Your task to perform on an android device: Go to Reddit.com Image 0: 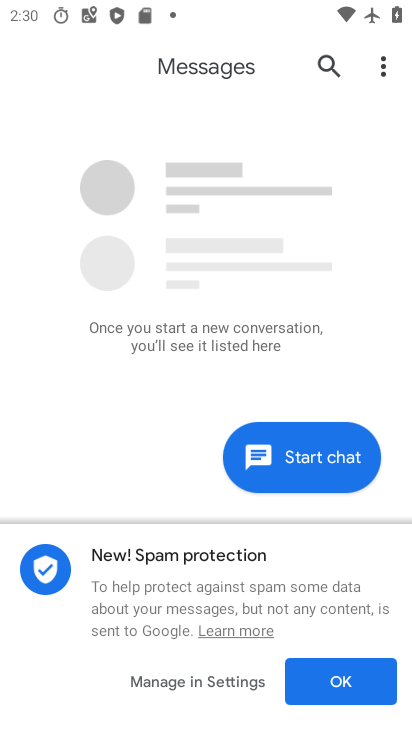
Step 0: press home button
Your task to perform on an android device: Go to Reddit.com Image 1: 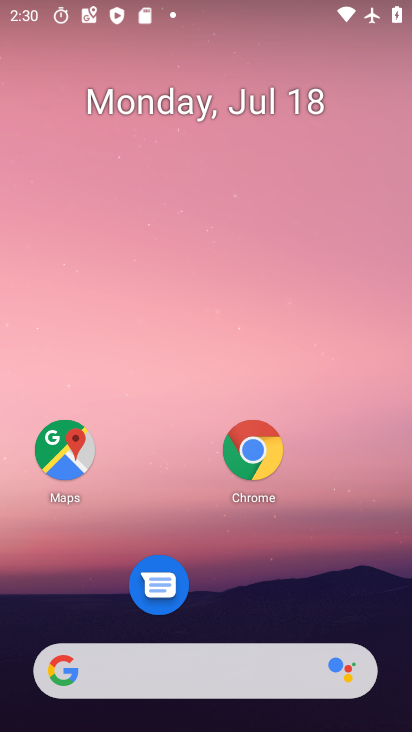
Step 1: click (255, 450)
Your task to perform on an android device: Go to Reddit.com Image 2: 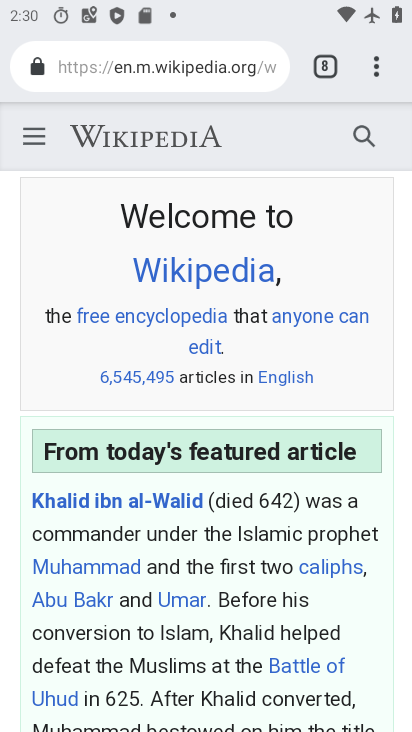
Step 2: drag from (374, 69) to (184, 132)
Your task to perform on an android device: Go to Reddit.com Image 3: 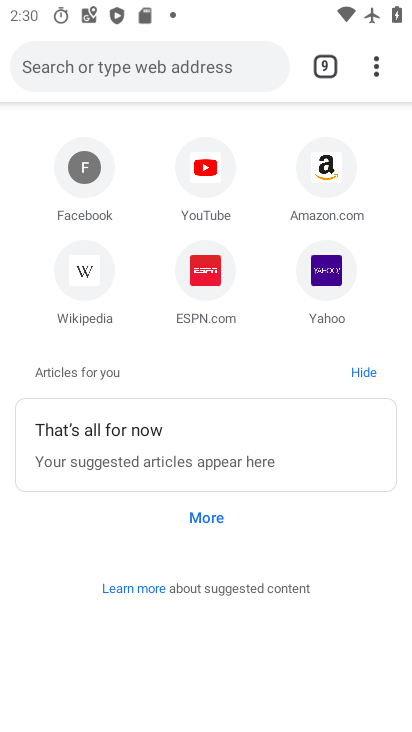
Step 3: click (143, 66)
Your task to perform on an android device: Go to Reddit.com Image 4: 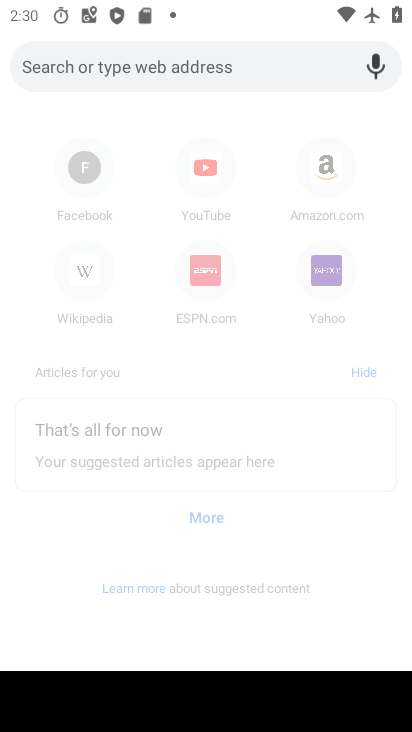
Step 4: type "reddit.com"
Your task to perform on an android device: Go to Reddit.com Image 5: 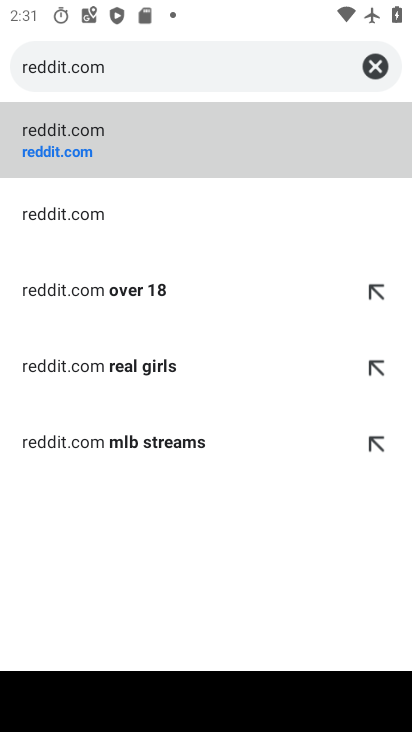
Step 5: click (67, 140)
Your task to perform on an android device: Go to Reddit.com Image 6: 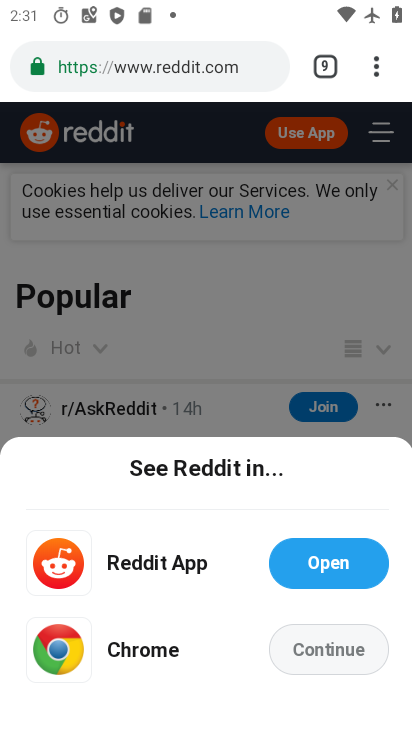
Step 6: task complete